Your task to perform on an android device: change alarm snooze length Image 0: 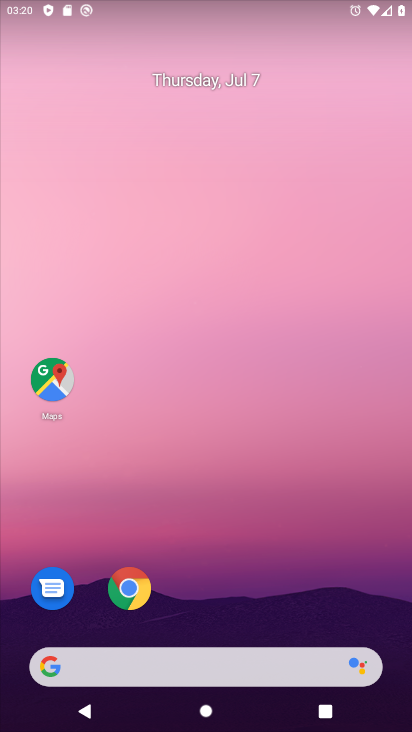
Step 0: drag from (183, 659) to (163, 196)
Your task to perform on an android device: change alarm snooze length Image 1: 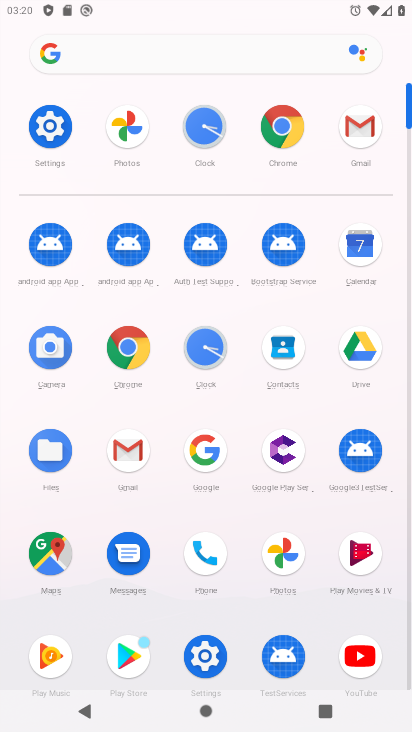
Step 1: click (212, 133)
Your task to perform on an android device: change alarm snooze length Image 2: 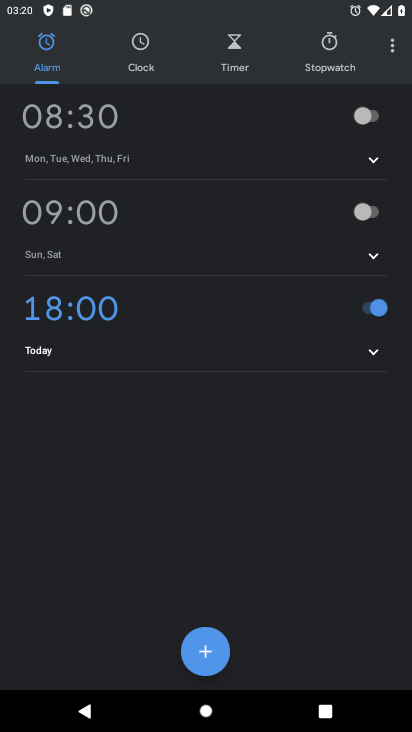
Step 2: click (394, 47)
Your task to perform on an android device: change alarm snooze length Image 3: 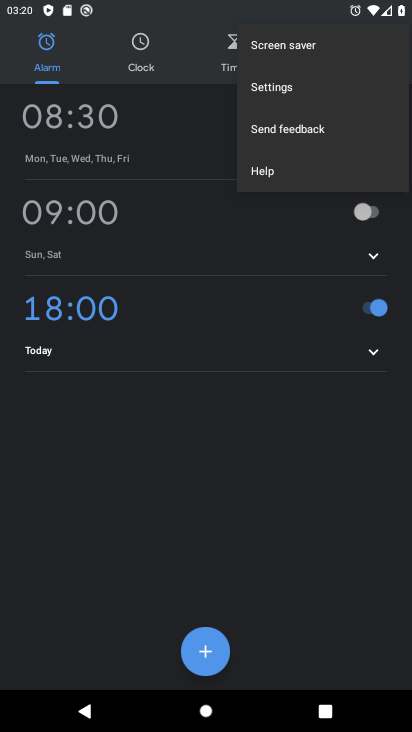
Step 3: click (279, 89)
Your task to perform on an android device: change alarm snooze length Image 4: 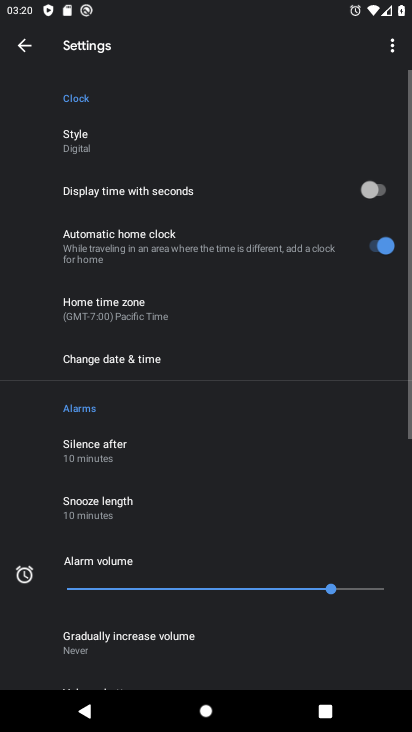
Step 4: drag from (114, 606) to (114, 266)
Your task to perform on an android device: change alarm snooze length Image 5: 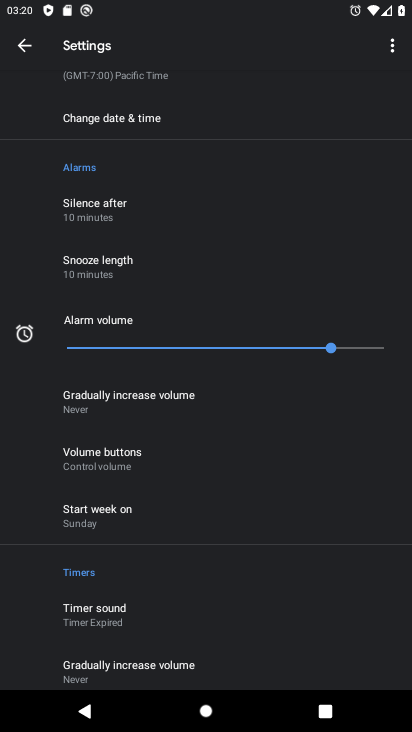
Step 5: click (103, 273)
Your task to perform on an android device: change alarm snooze length Image 6: 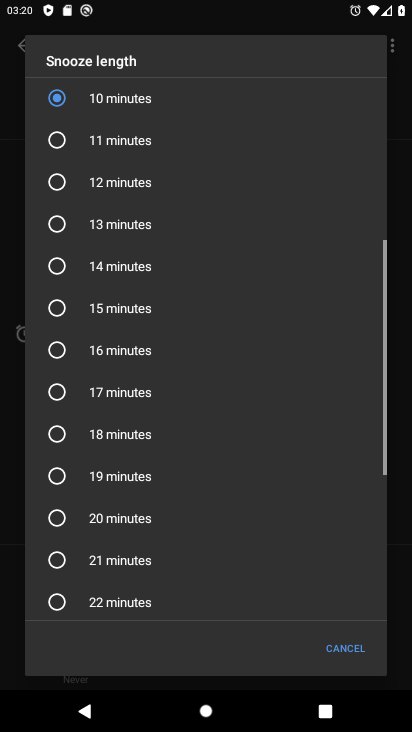
Step 6: click (109, 304)
Your task to perform on an android device: change alarm snooze length Image 7: 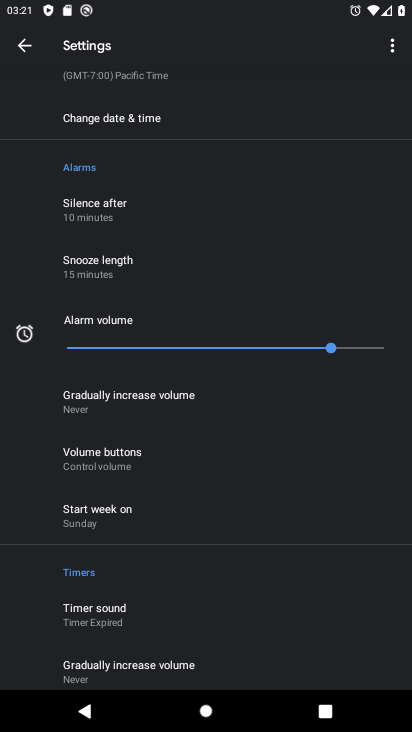
Step 7: click (105, 278)
Your task to perform on an android device: change alarm snooze length Image 8: 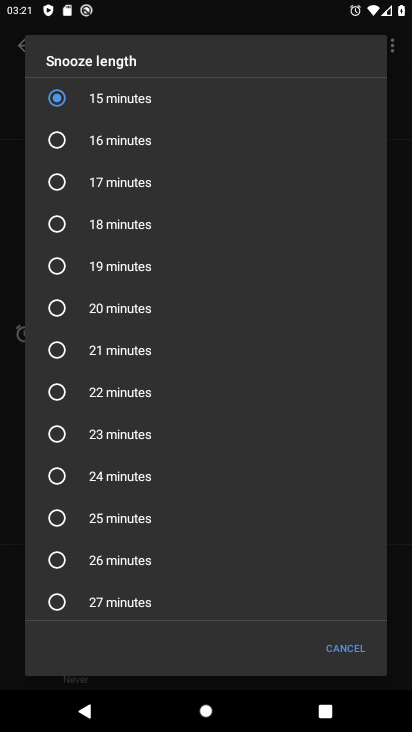
Step 8: click (135, 515)
Your task to perform on an android device: change alarm snooze length Image 9: 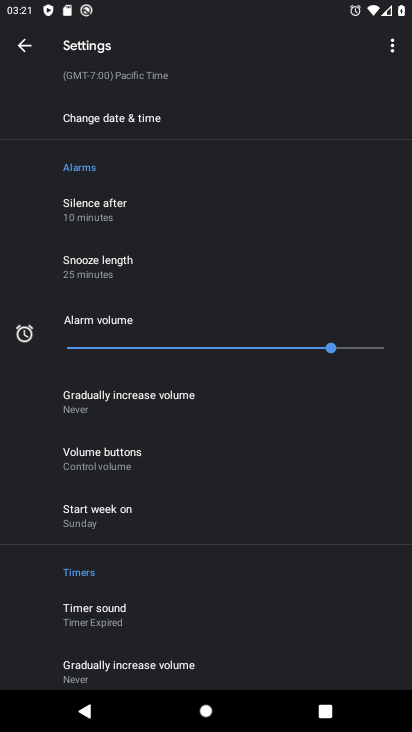
Step 9: task complete